Your task to perform on an android device: Go to location settings Image 0: 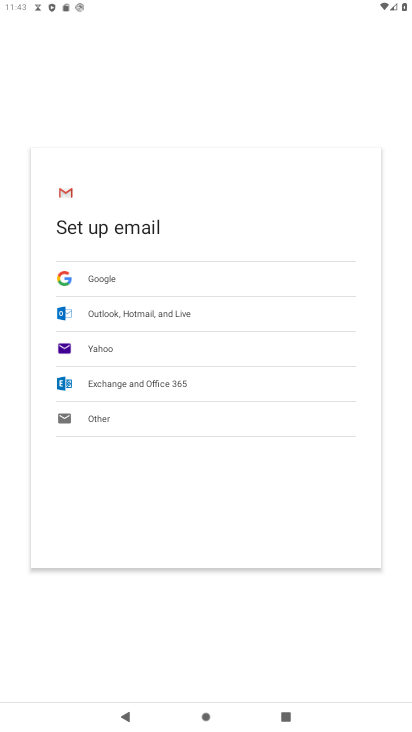
Step 0: press home button
Your task to perform on an android device: Go to location settings Image 1: 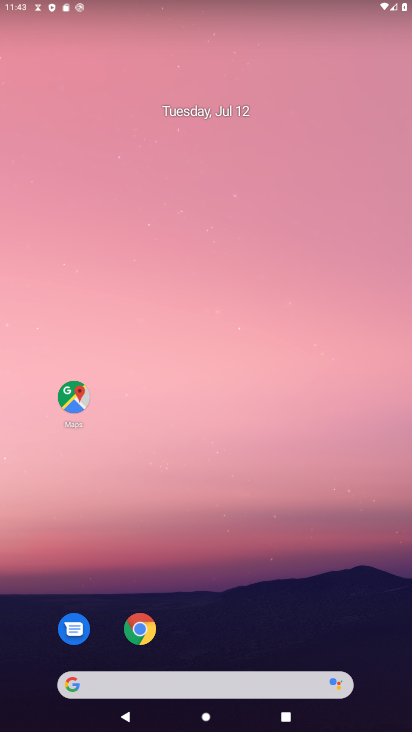
Step 1: drag from (237, 544) to (149, 52)
Your task to perform on an android device: Go to location settings Image 2: 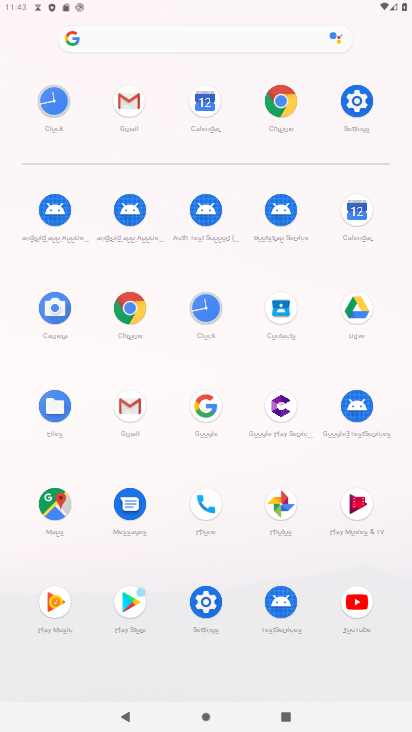
Step 2: click (365, 104)
Your task to perform on an android device: Go to location settings Image 3: 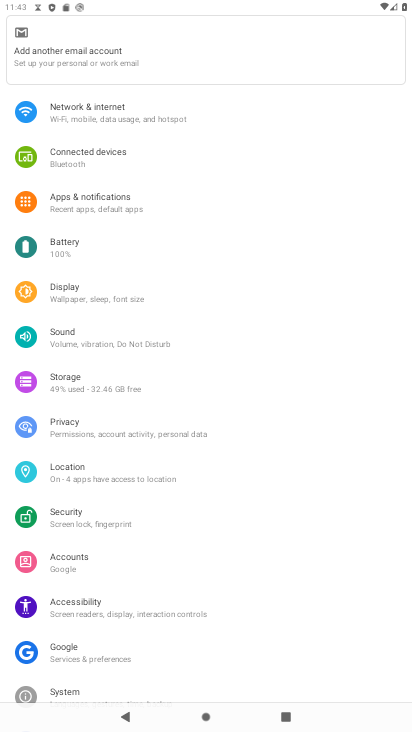
Step 3: click (104, 468)
Your task to perform on an android device: Go to location settings Image 4: 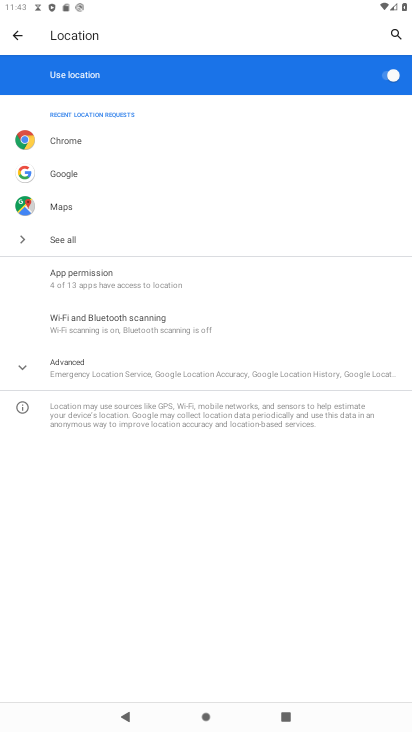
Step 4: task complete